Your task to perform on an android device: allow notifications from all sites in the chrome app Image 0: 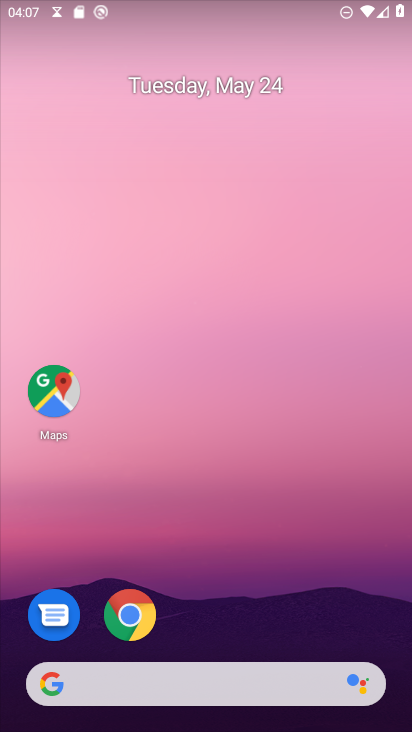
Step 0: drag from (257, 550) to (217, 18)
Your task to perform on an android device: allow notifications from all sites in the chrome app Image 1: 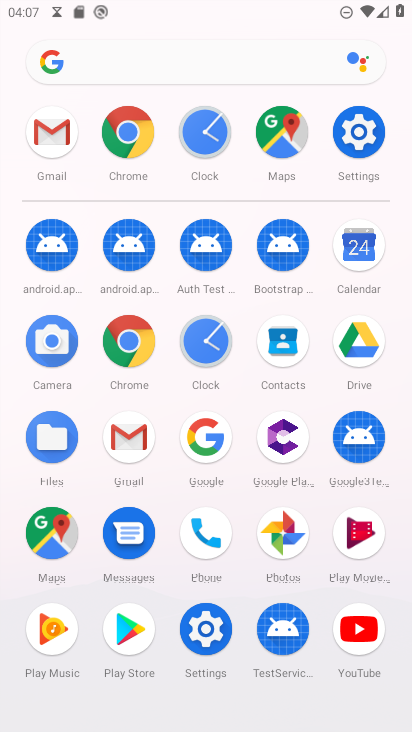
Step 1: click (132, 337)
Your task to perform on an android device: allow notifications from all sites in the chrome app Image 2: 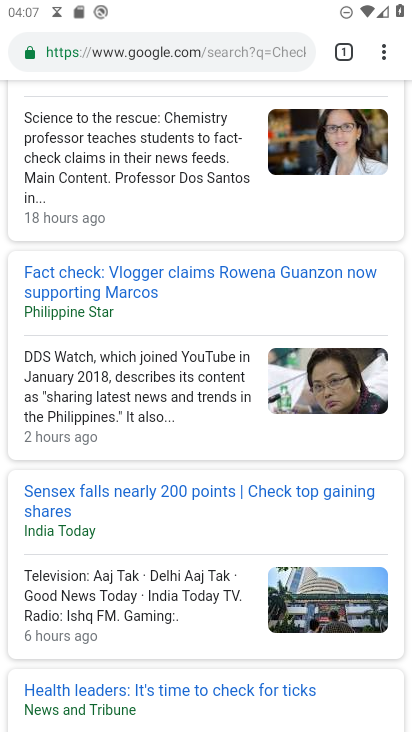
Step 2: drag from (376, 43) to (205, 567)
Your task to perform on an android device: allow notifications from all sites in the chrome app Image 3: 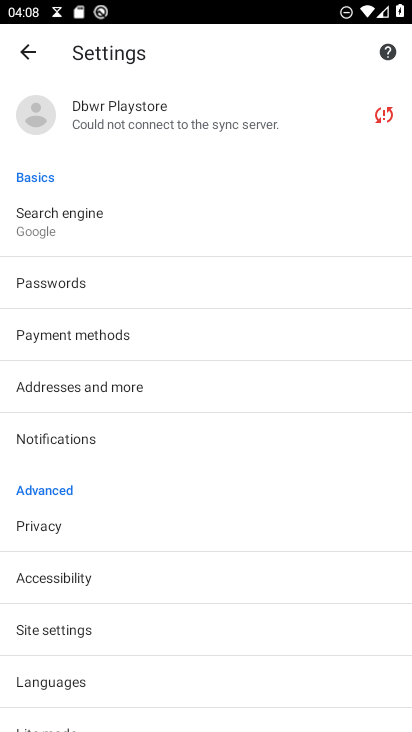
Step 3: click (84, 448)
Your task to perform on an android device: allow notifications from all sites in the chrome app Image 4: 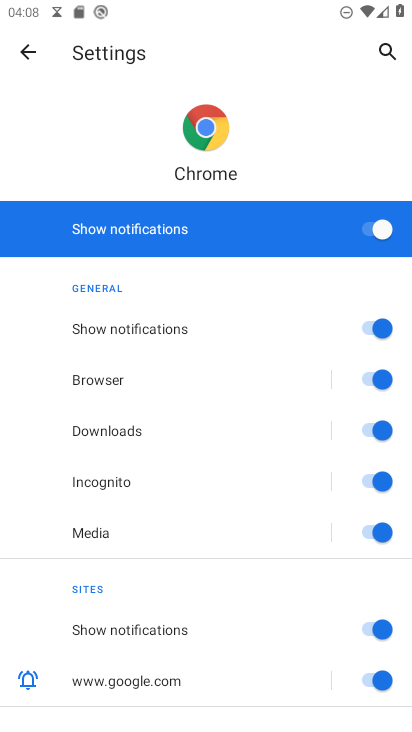
Step 4: click (19, 46)
Your task to perform on an android device: allow notifications from all sites in the chrome app Image 5: 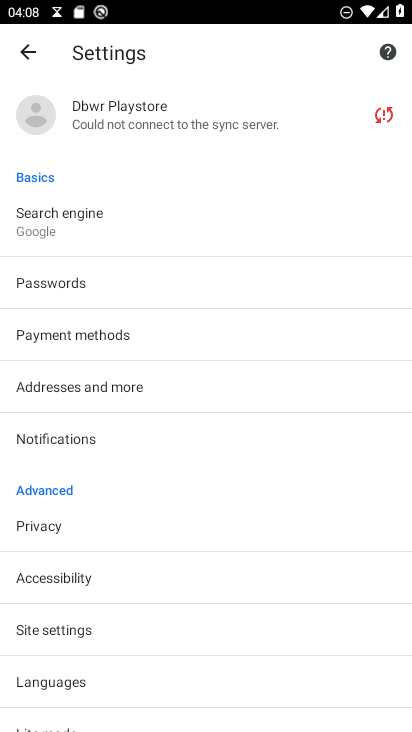
Step 5: click (73, 635)
Your task to perform on an android device: allow notifications from all sites in the chrome app Image 6: 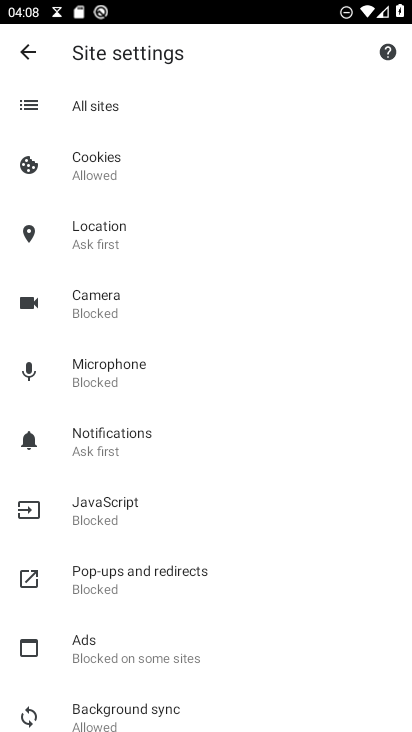
Step 6: click (156, 451)
Your task to perform on an android device: allow notifications from all sites in the chrome app Image 7: 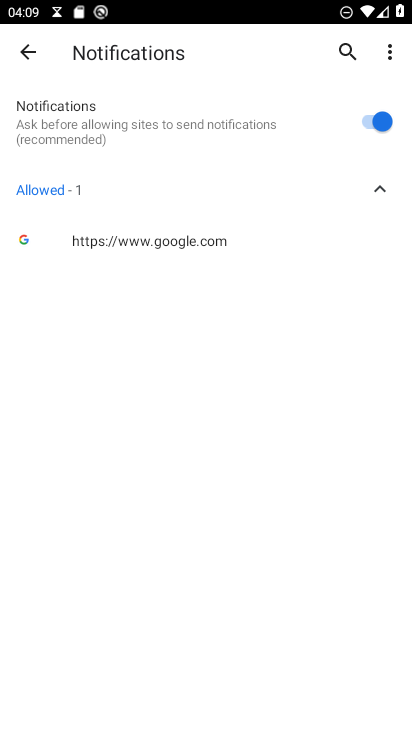
Step 7: task complete